Your task to perform on an android device: toggle pop-ups in chrome Image 0: 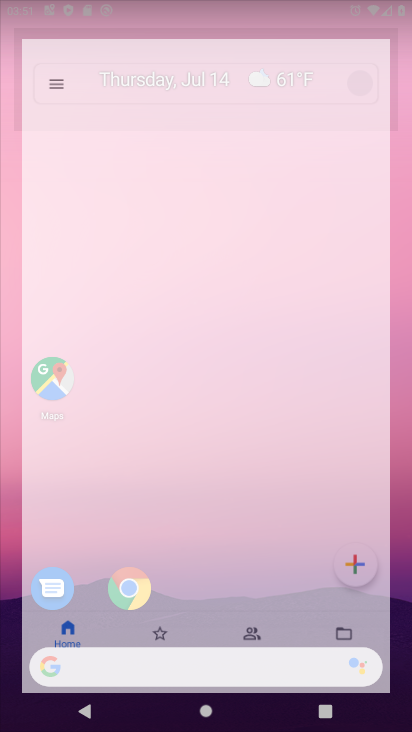
Step 0: press home button
Your task to perform on an android device: toggle pop-ups in chrome Image 1: 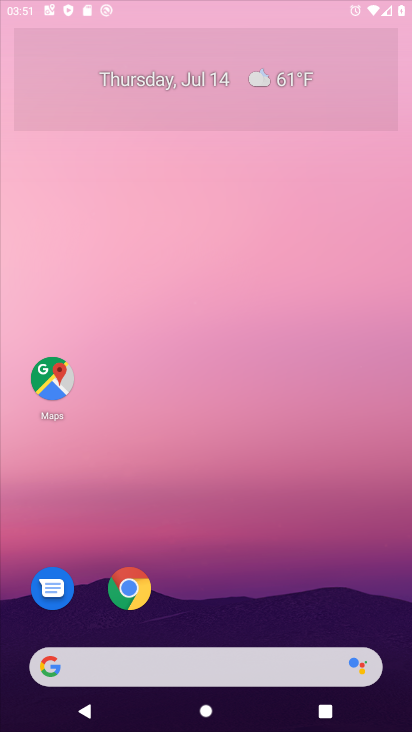
Step 1: press home button
Your task to perform on an android device: toggle pop-ups in chrome Image 2: 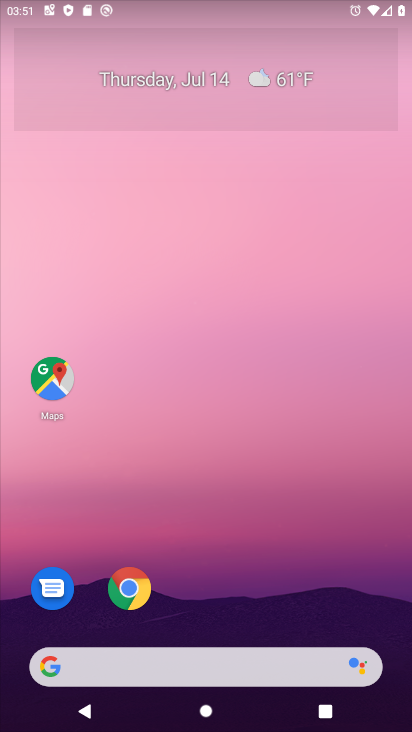
Step 2: click (119, 585)
Your task to perform on an android device: toggle pop-ups in chrome Image 3: 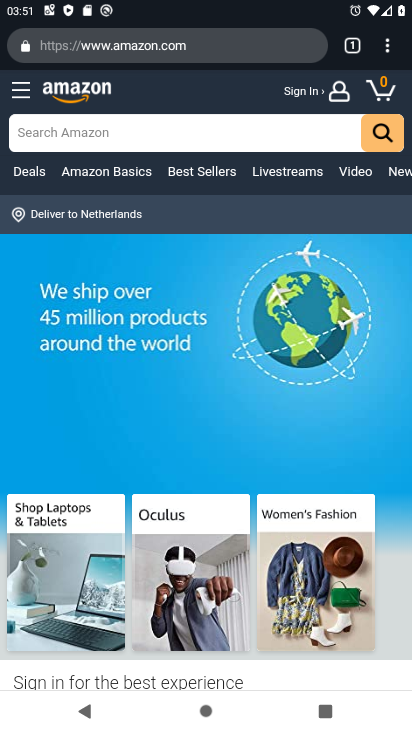
Step 3: drag from (388, 43) to (200, 557)
Your task to perform on an android device: toggle pop-ups in chrome Image 4: 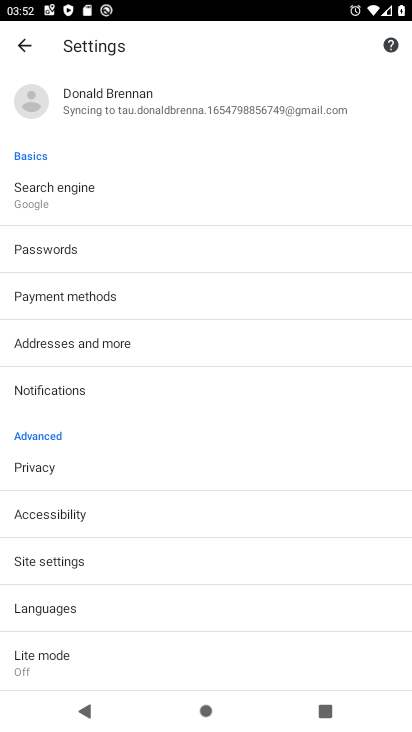
Step 4: click (38, 556)
Your task to perform on an android device: toggle pop-ups in chrome Image 5: 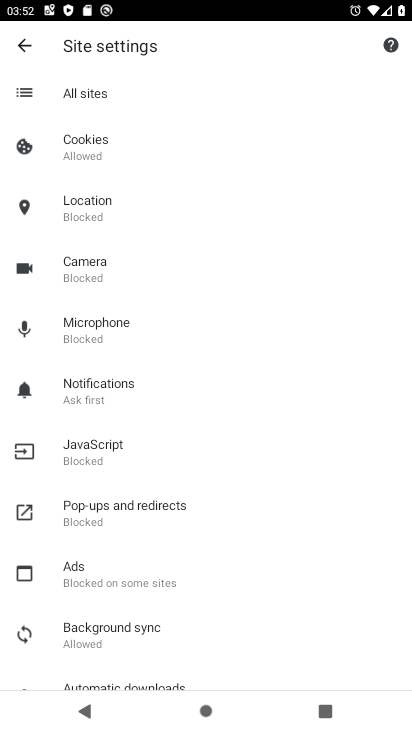
Step 5: click (81, 516)
Your task to perform on an android device: toggle pop-ups in chrome Image 6: 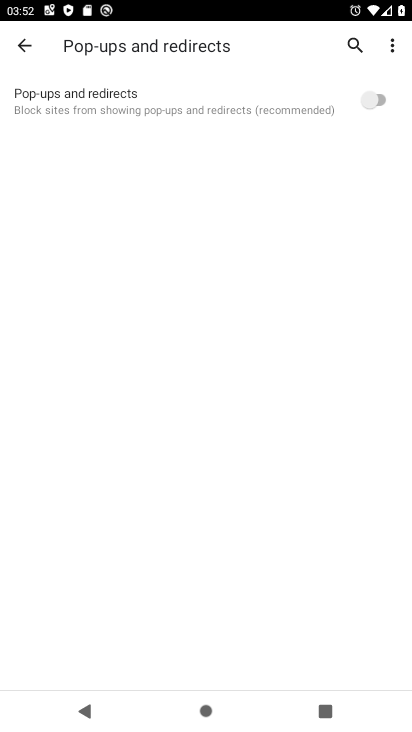
Step 6: click (378, 96)
Your task to perform on an android device: toggle pop-ups in chrome Image 7: 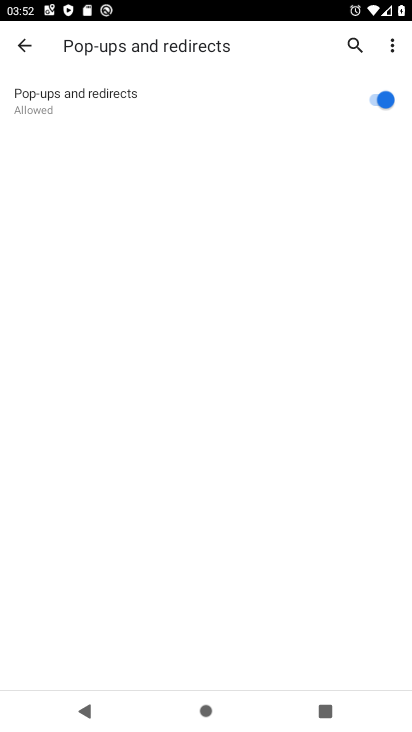
Step 7: task complete